Your task to perform on an android device: install app "Paramount+ | Peak Streaming" Image 0: 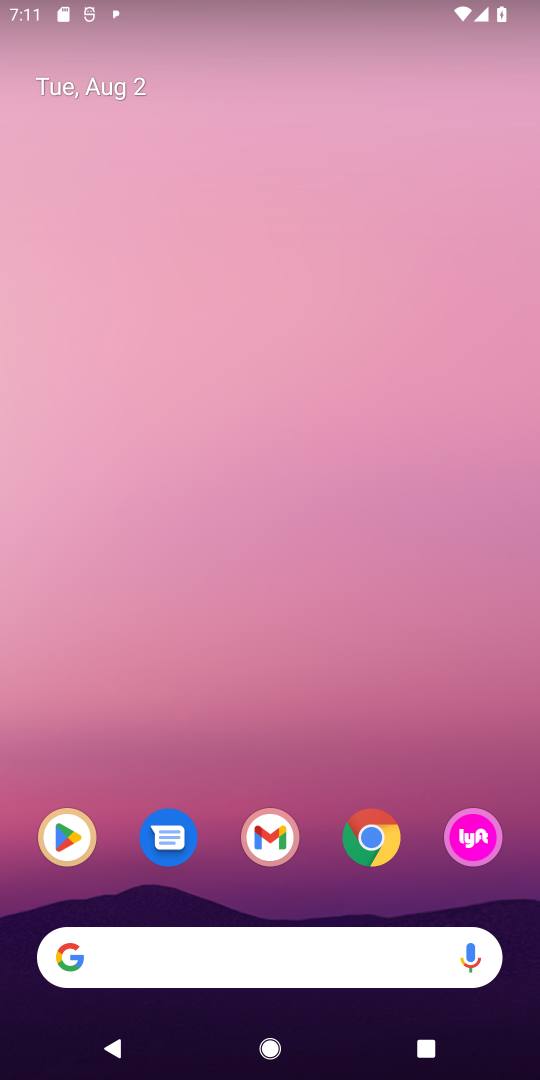
Step 0: click (76, 843)
Your task to perform on an android device: install app "Paramount+ | Peak Streaming" Image 1: 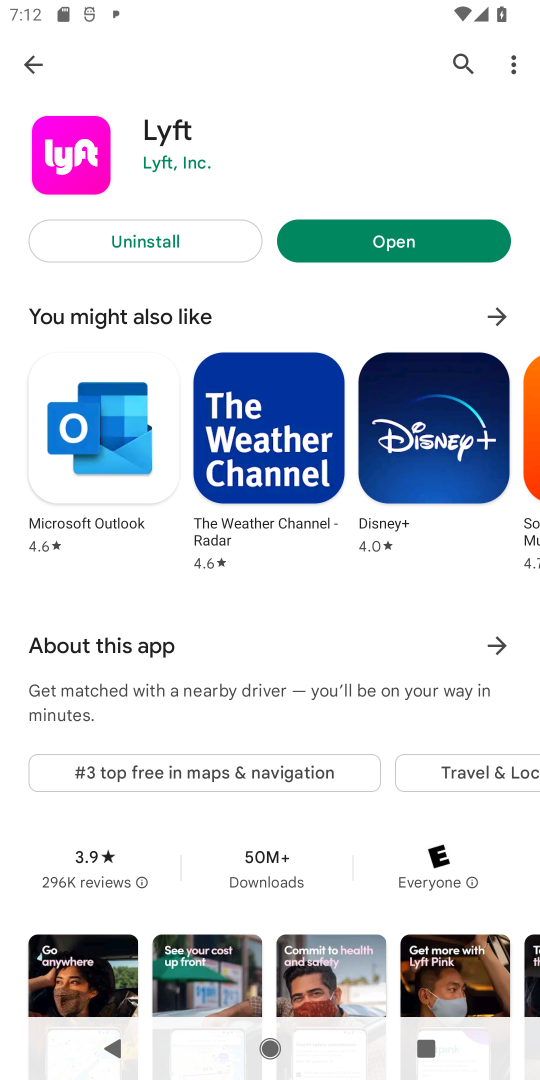
Step 1: click (463, 72)
Your task to perform on an android device: install app "Paramount+ | Peak Streaming" Image 2: 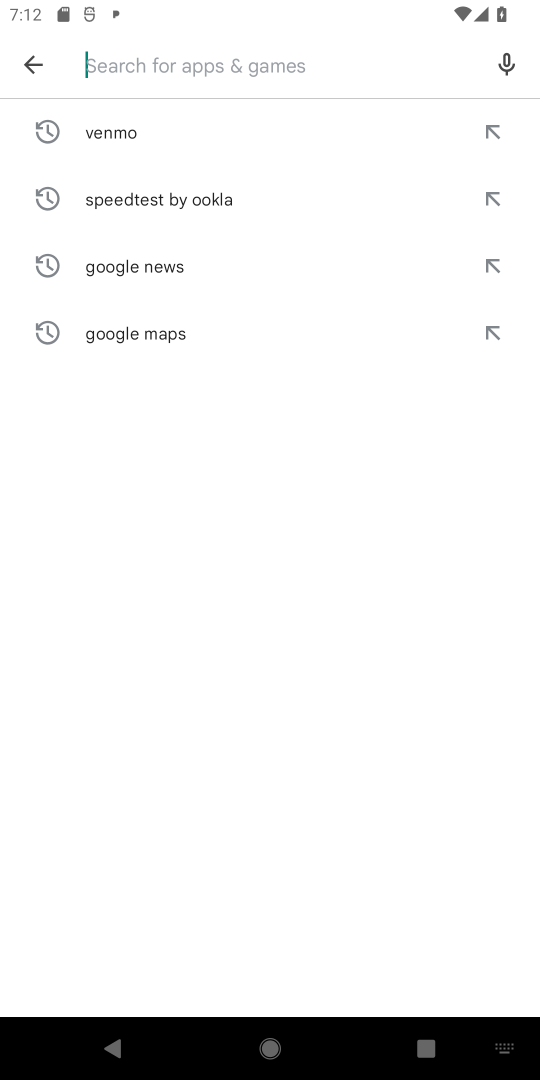
Step 2: type "Paramount+ | Peak Streaming"
Your task to perform on an android device: install app "Paramount+ | Peak Streaming" Image 3: 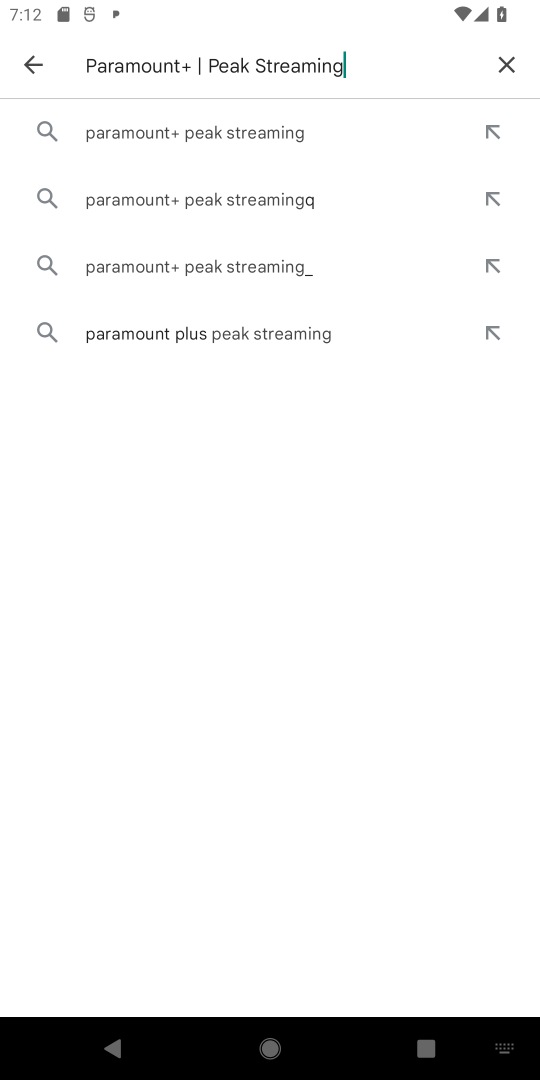
Step 3: click (133, 146)
Your task to perform on an android device: install app "Paramount+ | Peak Streaming" Image 4: 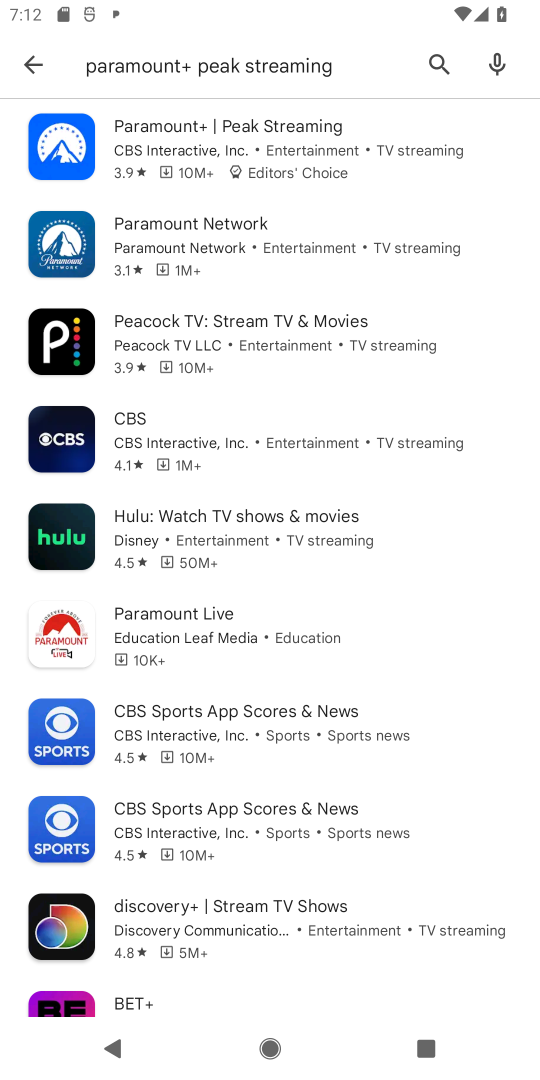
Step 4: click (135, 149)
Your task to perform on an android device: install app "Paramount+ | Peak Streaming" Image 5: 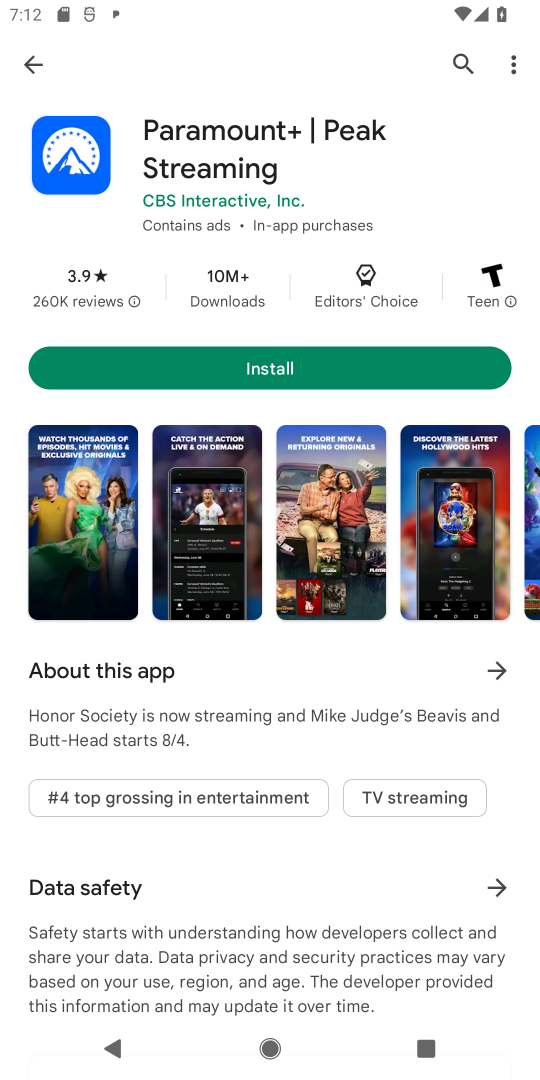
Step 5: click (211, 373)
Your task to perform on an android device: install app "Paramount+ | Peak Streaming" Image 6: 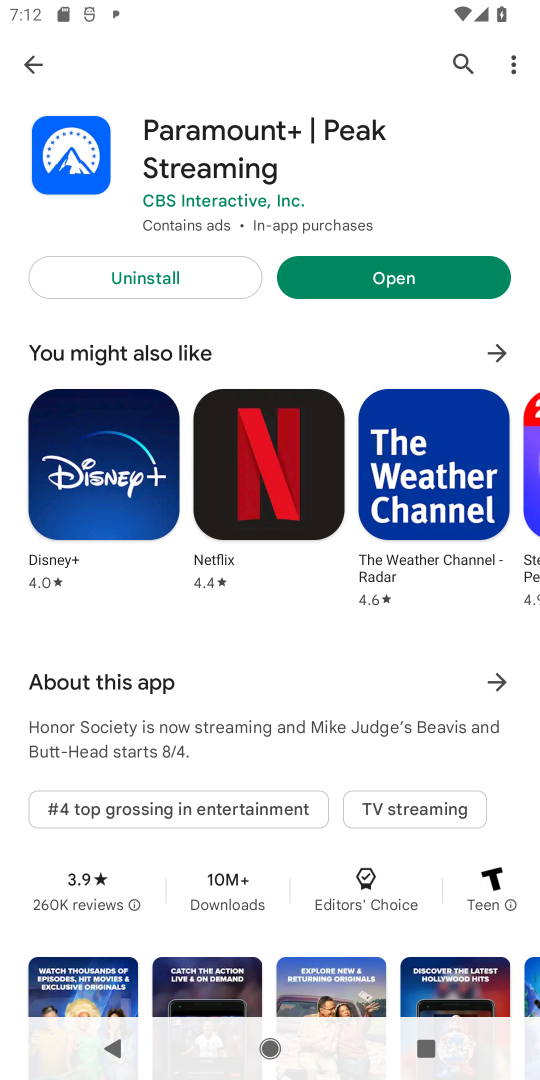
Step 6: task complete